Your task to perform on an android device: Open the web browser Image 0: 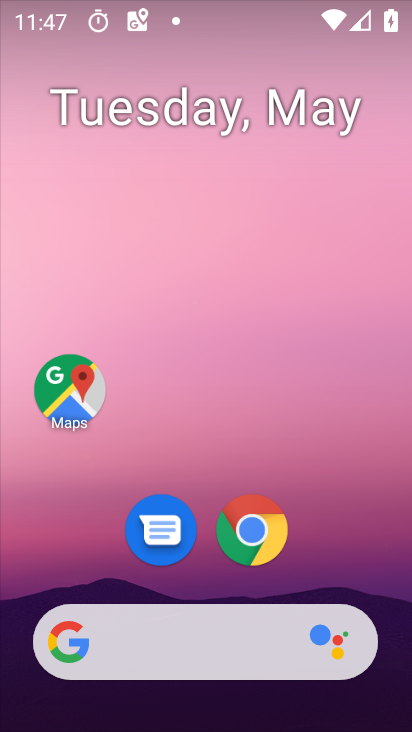
Step 0: drag from (273, 609) to (362, 20)
Your task to perform on an android device: Open the web browser Image 1: 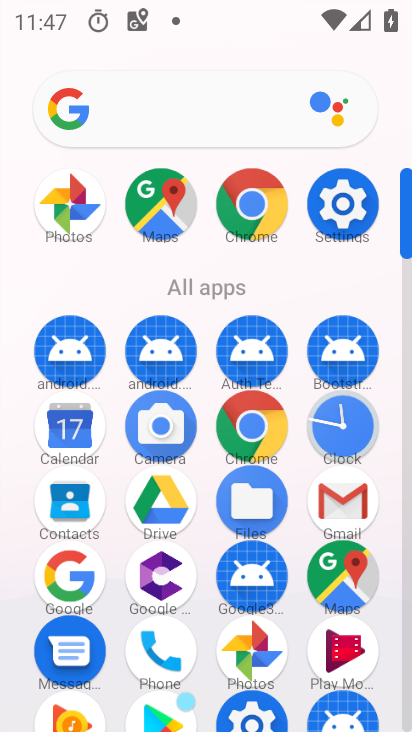
Step 1: click (280, 431)
Your task to perform on an android device: Open the web browser Image 2: 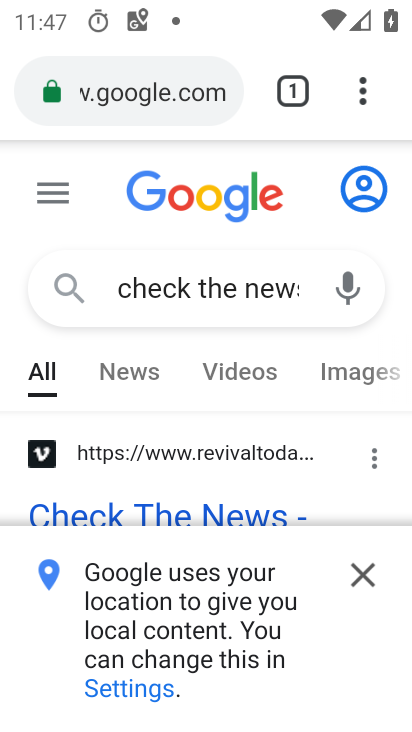
Step 2: click (238, 200)
Your task to perform on an android device: Open the web browser Image 3: 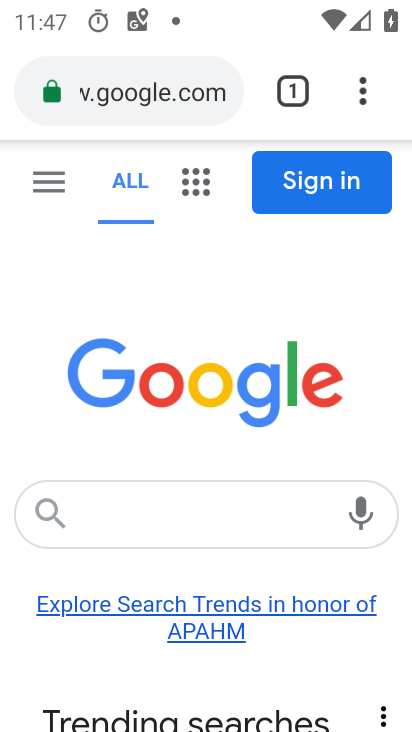
Step 3: task complete